Your task to perform on an android device: empty trash in the gmail app Image 0: 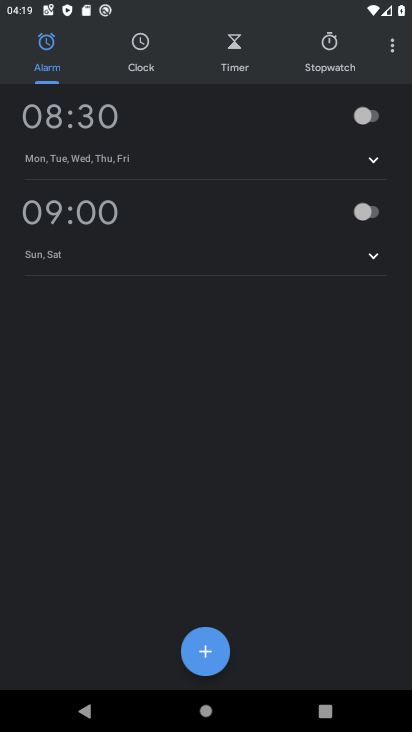
Step 0: press home button
Your task to perform on an android device: empty trash in the gmail app Image 1: 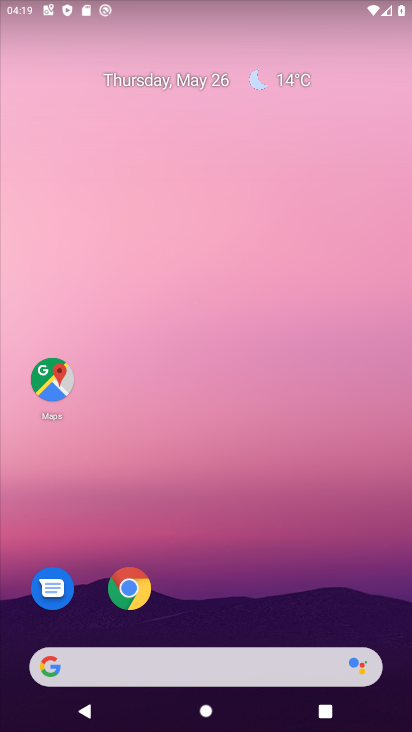
Step 1: drag from (270, 578) to (298, 85)
Your task to perform on an android device: empty trash in the gmail app Image 2: 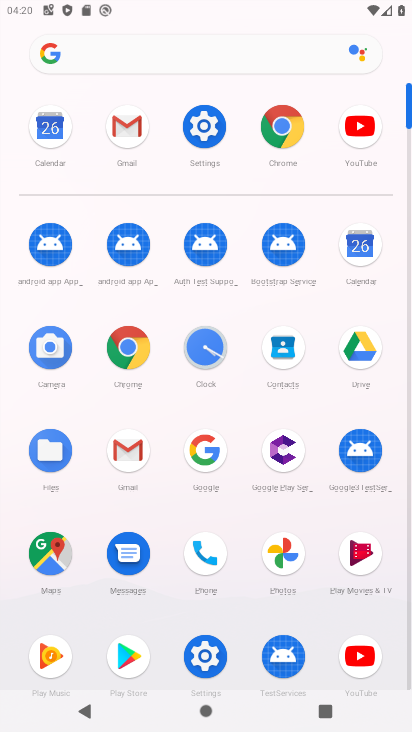
Step 2: click (118, 138)
Your task to perform on an android device: empty trash in the gmail app Image 3: 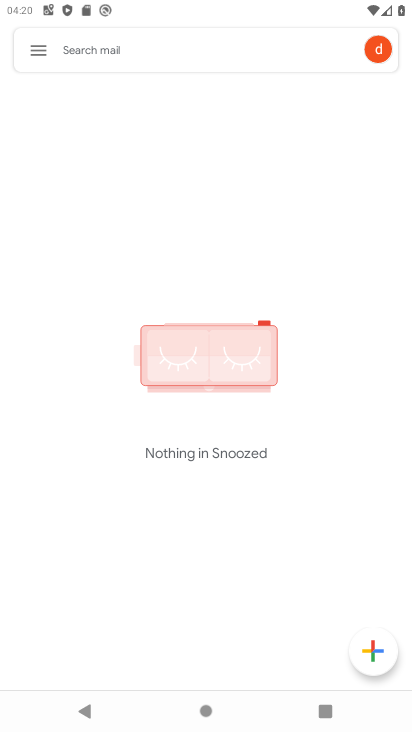
Step 3: click (43, 54)
Your task to perform on an android device: empty trash in the gmail app Image 4: 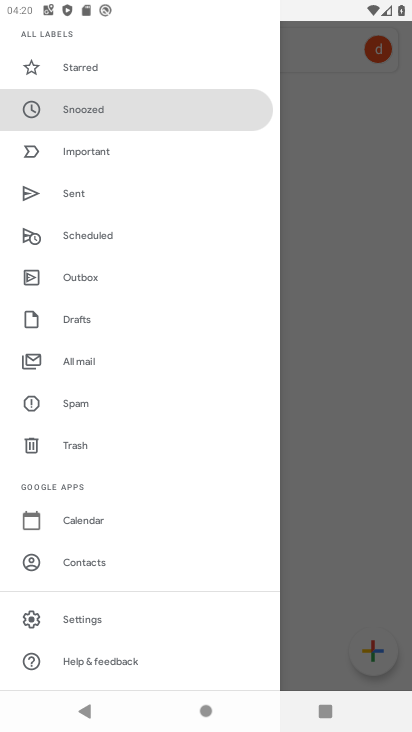
Step 4: click (119, 436)
Your task to perform on an android device: empty trash in the gmail app Image 5: 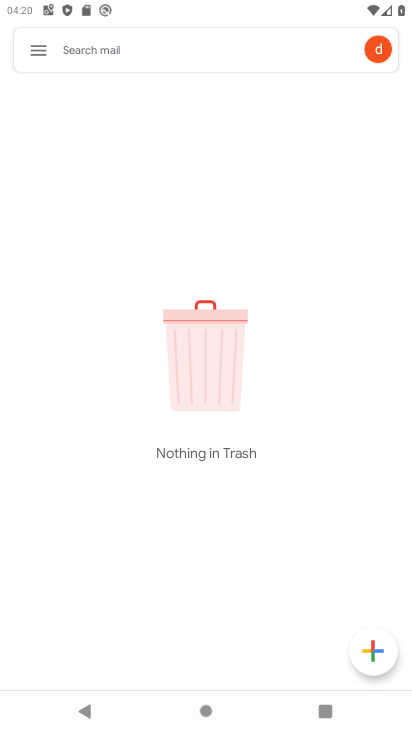
Step 5: task complete